Your task to perform on an android device: Add "alienware area 51" to the cart on bestbuy.com Image 0: 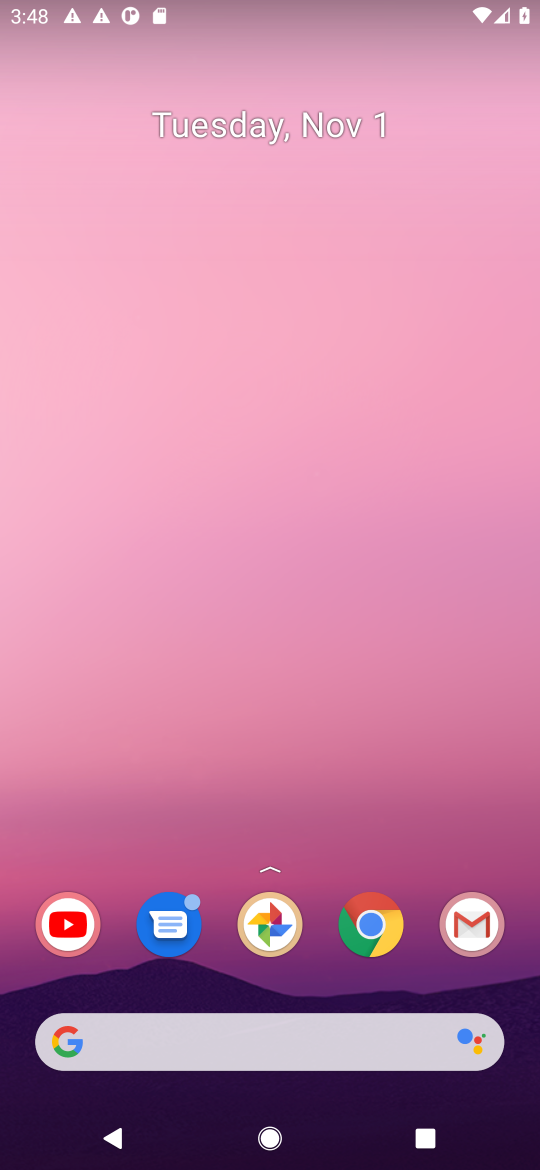
Step 0: drag from (184, 696) to (250, 230)
Your task to perform on an android device: Add "alienware area 51" to the cart on bestbuy.com Image 1: 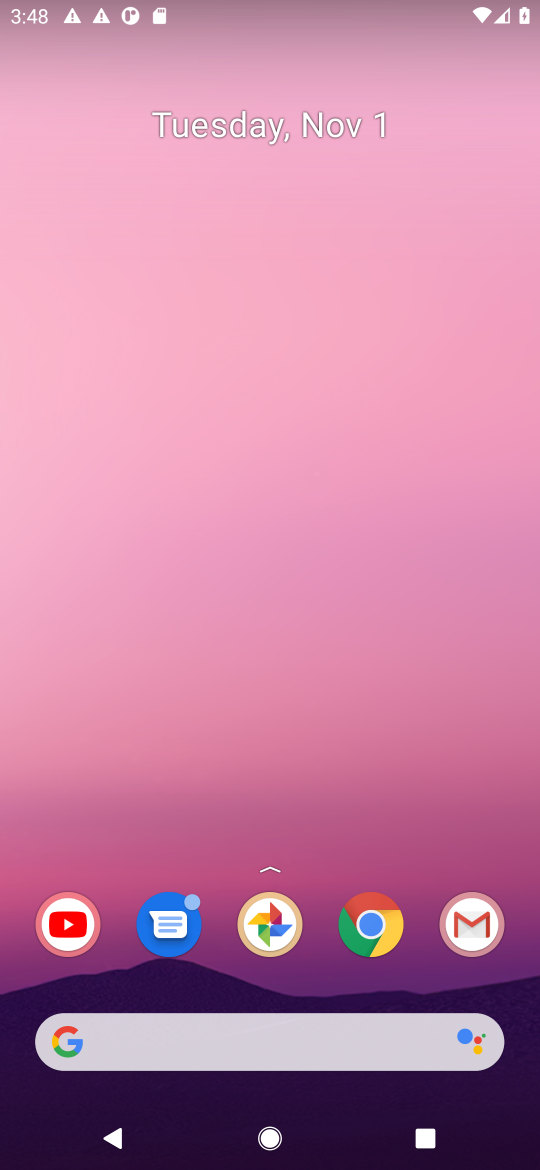
Step 1: drag from (257, 1039) to (127, 81)
Your task to perform on an android device: Add "alienware area 51" to the cart on bestbuy.com Image 2: 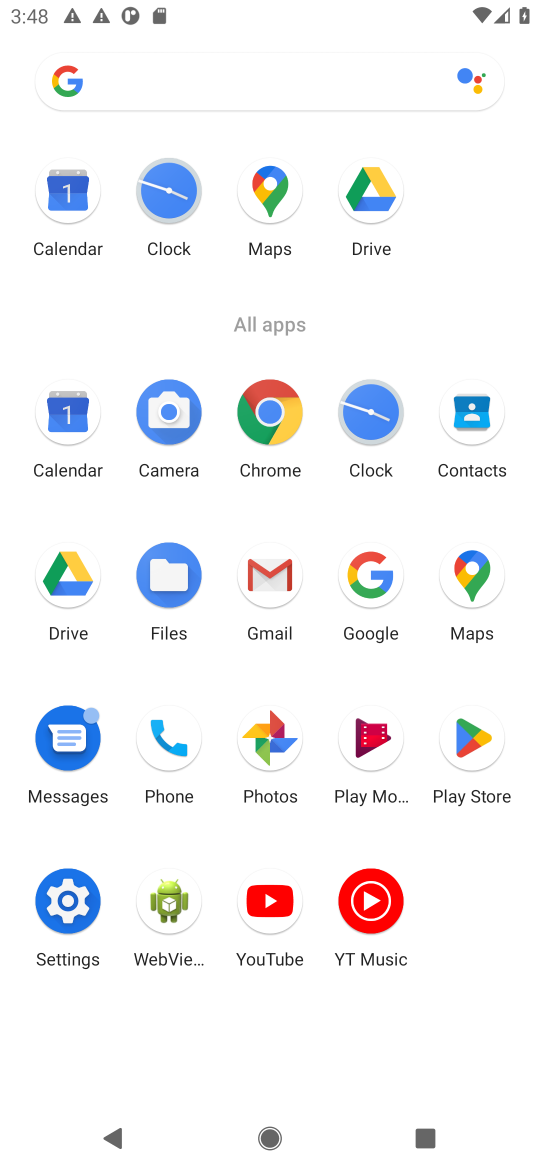
Step 2: click (303, 405)
Your task to perform on an android device: Add "alienware area 51" to the cart on bestbuy.com Image 3: 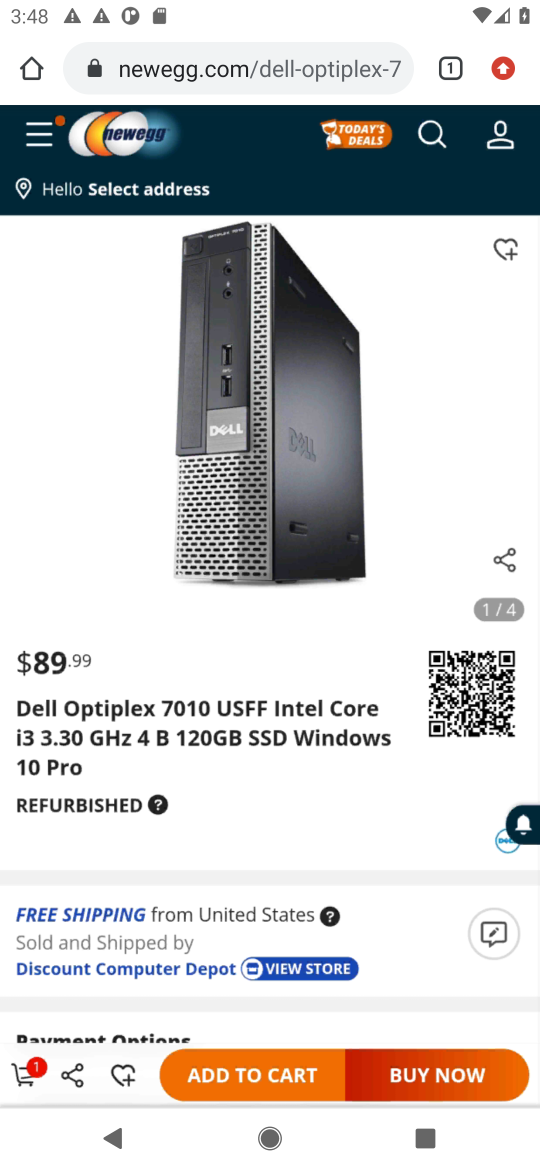
Step 3: click (134, 62)
Your task to perform on an android device: Add "alienware area 51" to the cart on bestbuy.com Image 4: 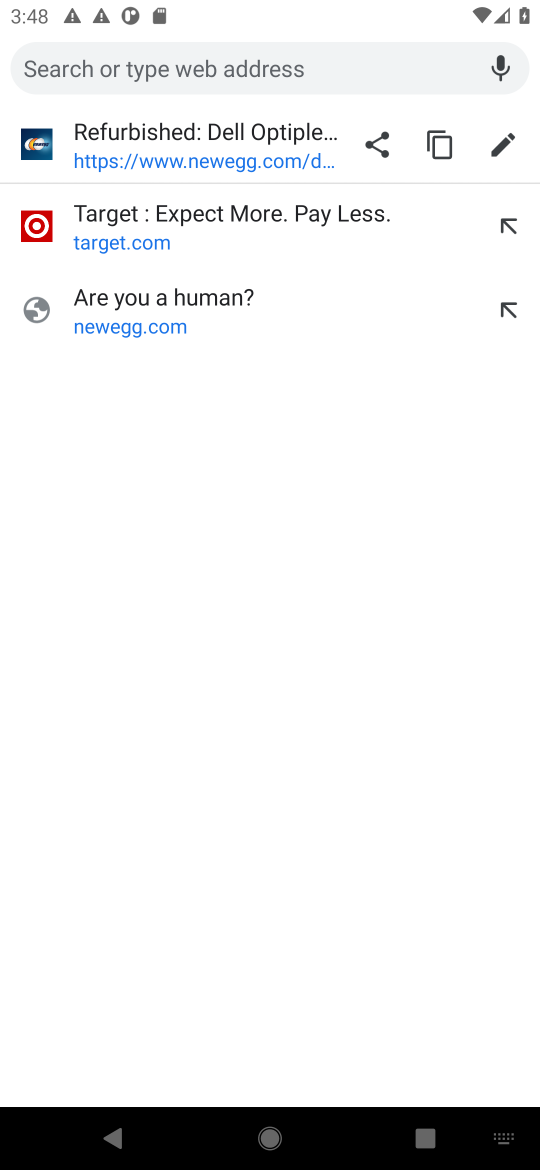
Step 4: type "bestbuy.com"
Your task to perform on an android device: Add "alienware area 51" to the cart on bestbuy.com Image 5: 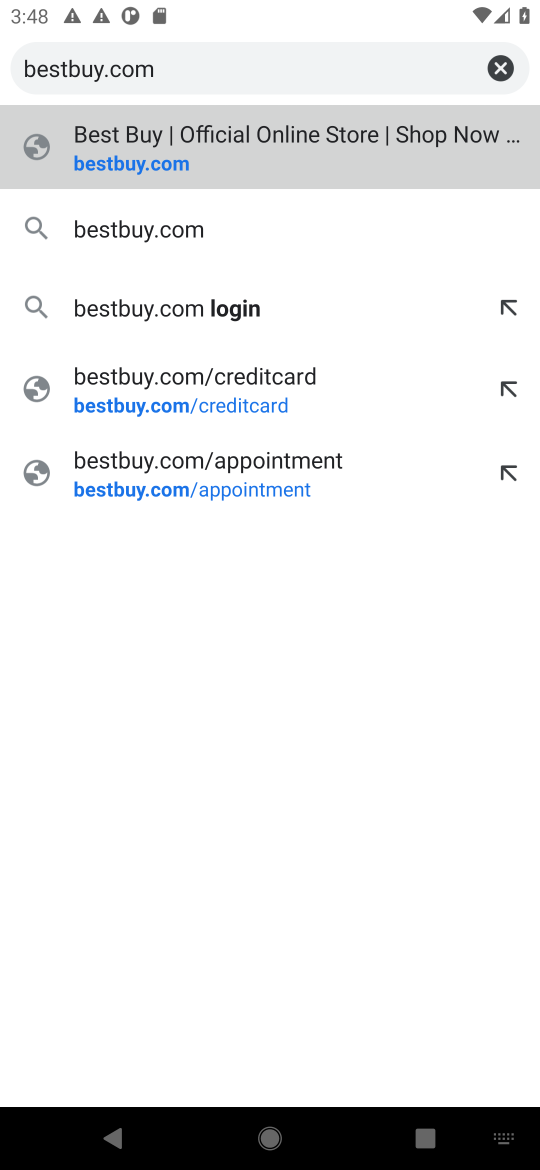
Step 5: press enter
Your task to perform on an android device: Add "alienware area 51" to the cart on bestbuy.com Image 6: 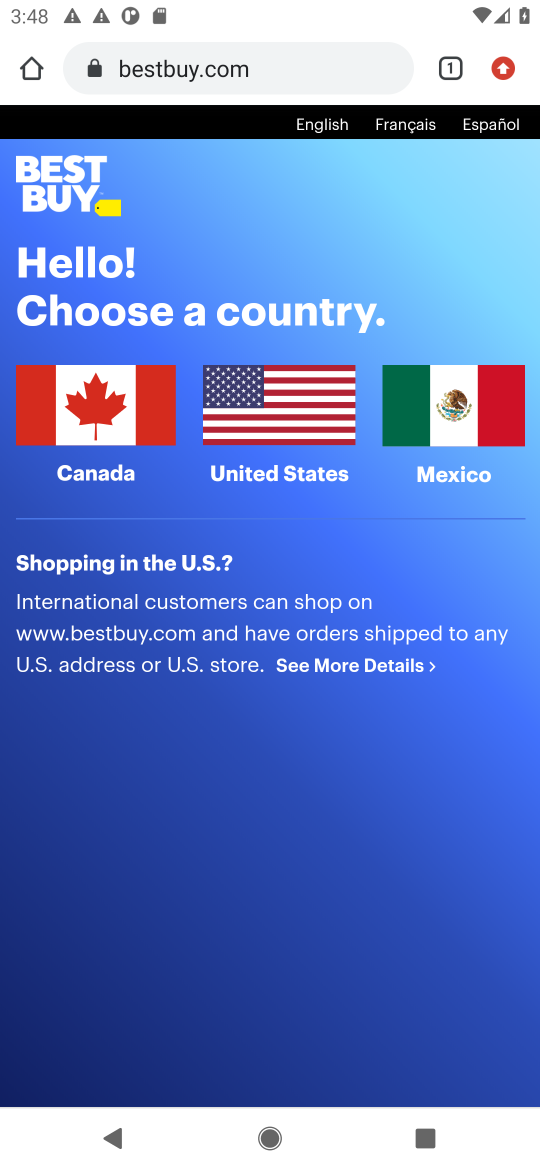
Step 6: click (35, 434)
Your task to perform on an android device: Add "alienware area 51" to the cart on bestbuy.com Image 7: 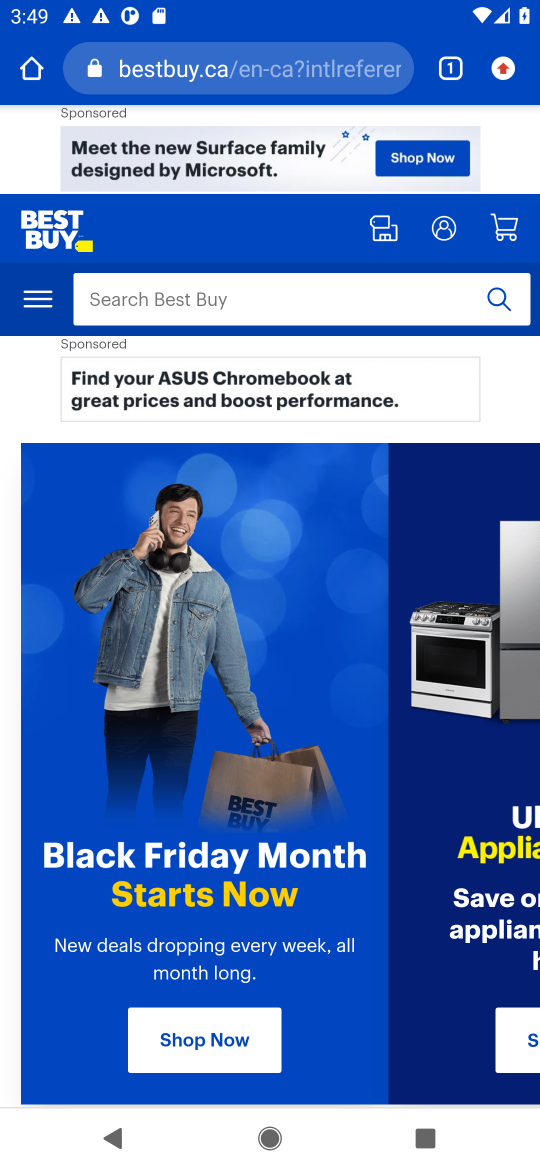
Step 7: click (132, 305)
Your task to perform on an android device: Add "alienware area 51" to the cart on bestbuy.com Image 8: 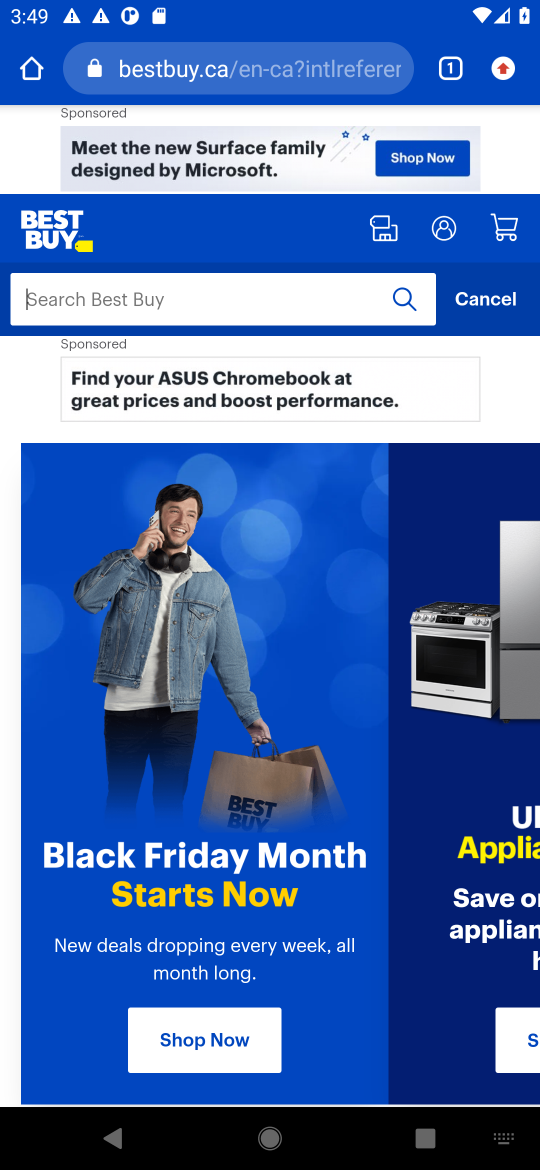
Step 8: type "alienware area 51"
Your task to perform on an android device: Add "alienware area 51" to the cart on bestbuy.com Image 9: 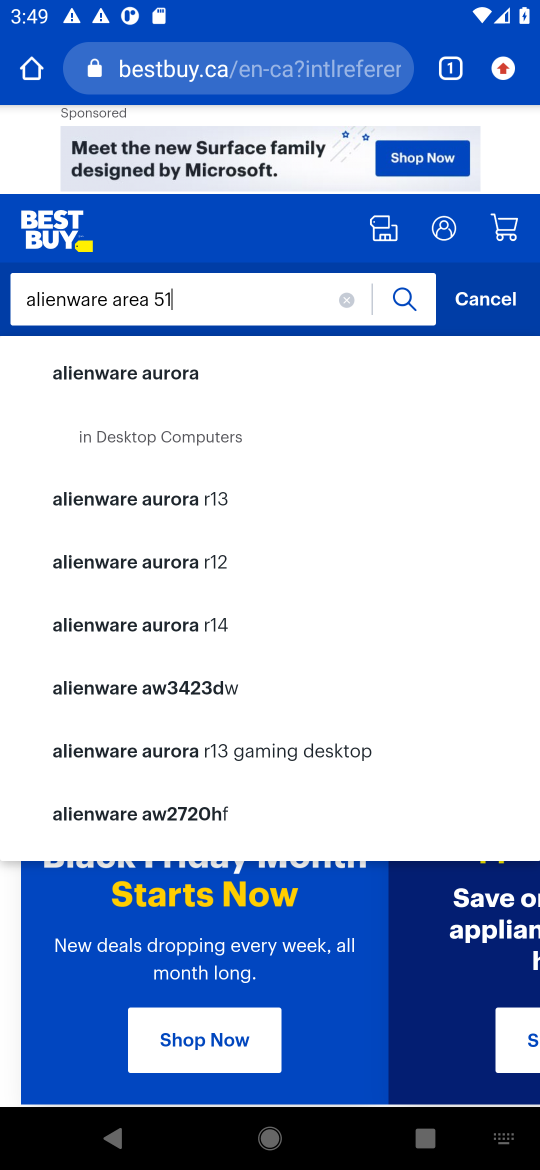
Step 9: press enter
Your task to perform on an android device: Add "alienware area 51" to the cart on bestbuy.com Image 10: 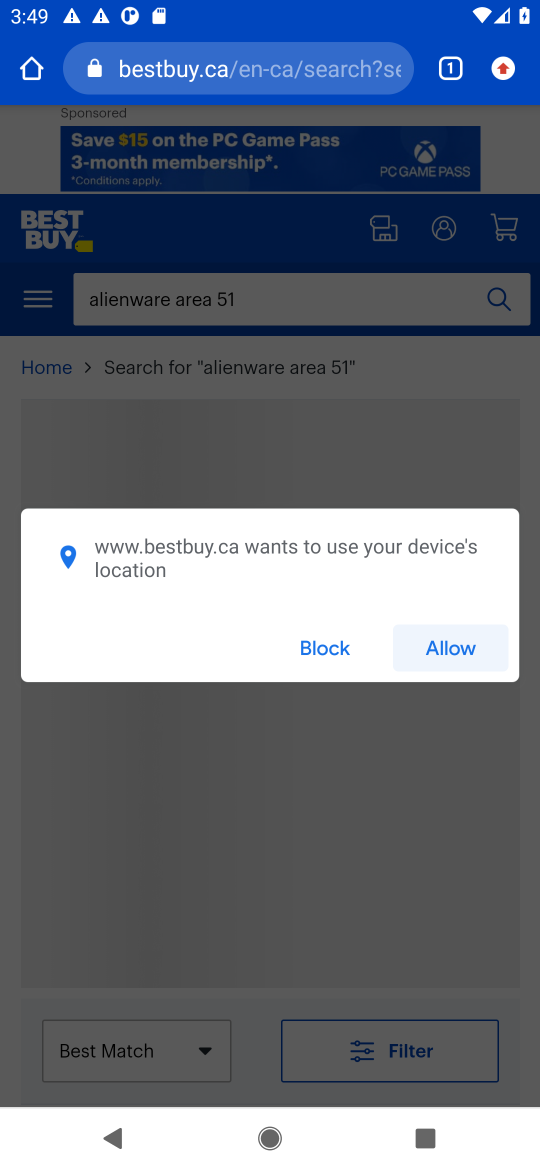
Step 10: click (422, 641)
Your task to perform on an android device: Add "alienware area 51" to the cart on bestbuy.com Image 11: 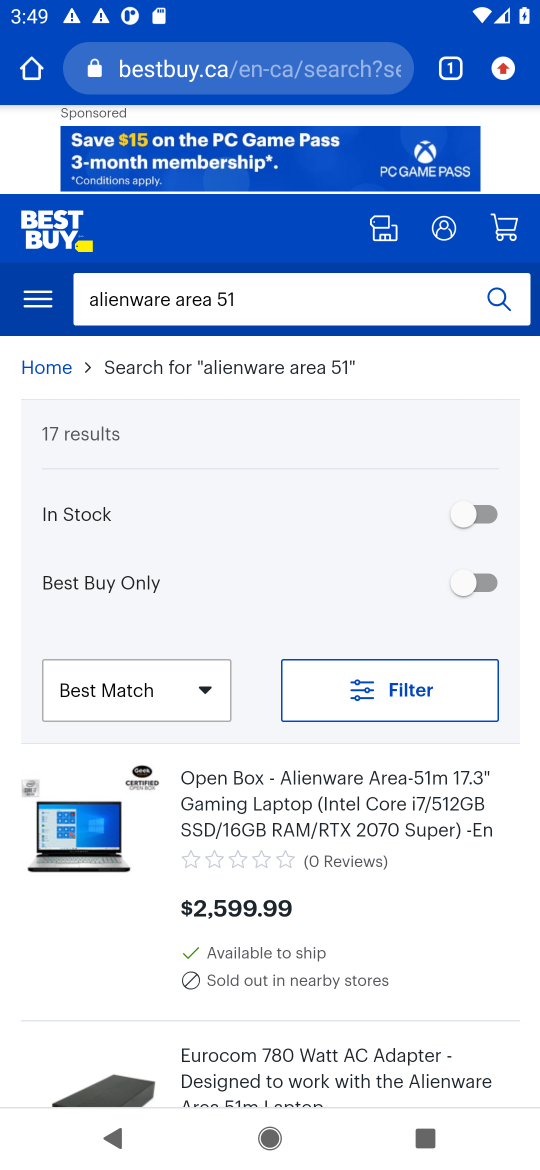
Step 11: drag from (331, 953) to (314, 572)
Your task to perform on an android device: Add "alienware area 51" to the cart on bestbuy.com Image 12: 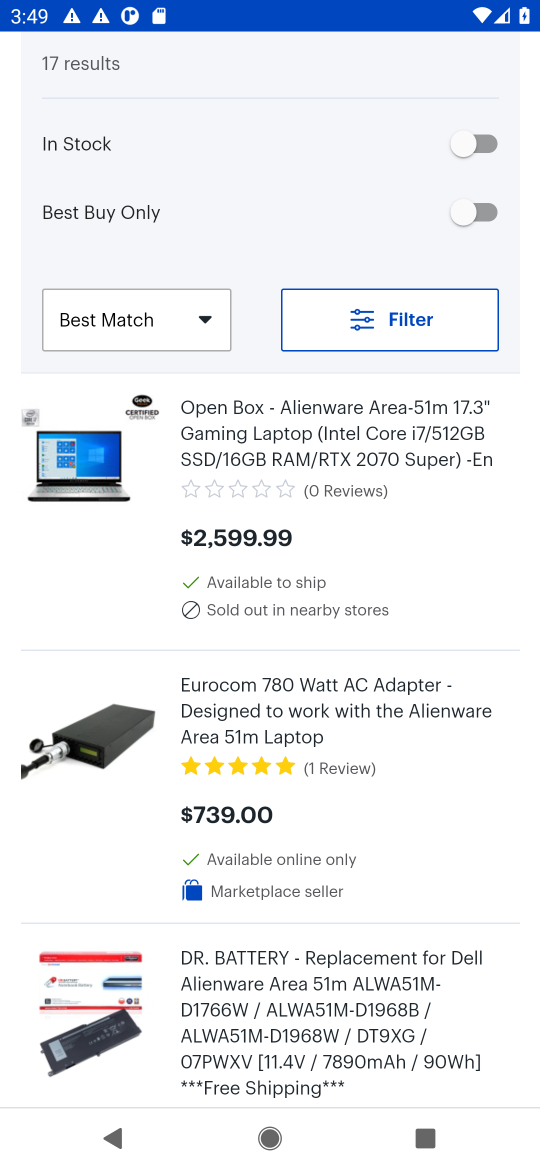
Step 12: click (195, 446)
Your task to perform on an android device: Add "alienware area 51" to the cart on bestbuy.com Image 13: 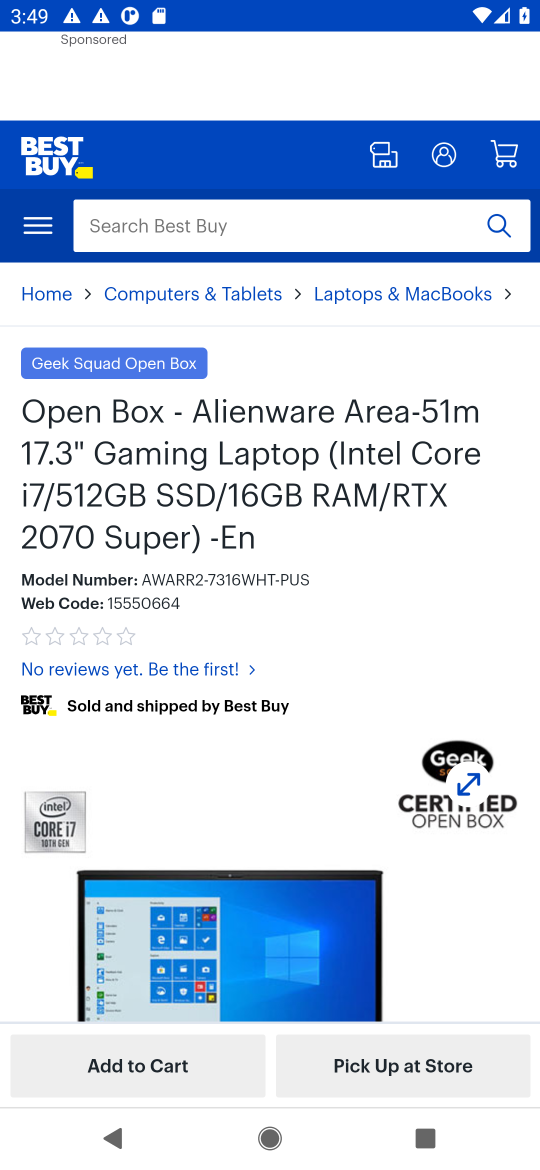
Step 13: drag from (65, 787) to (21, 545)
Your task to perform on an android device: Add "alienware area 51" to the cart on bestbuy.com Image 14: 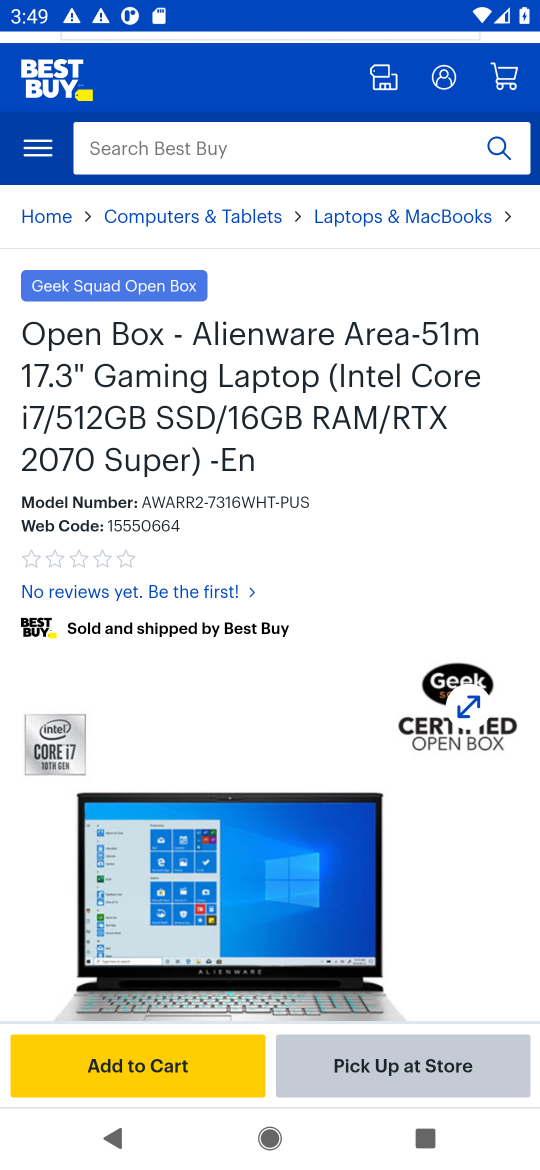
Step 14: click (116, 1062)
Your task to perform on an android device: Add "alienware area 51" to the cart on bestbuy.com Image 15: 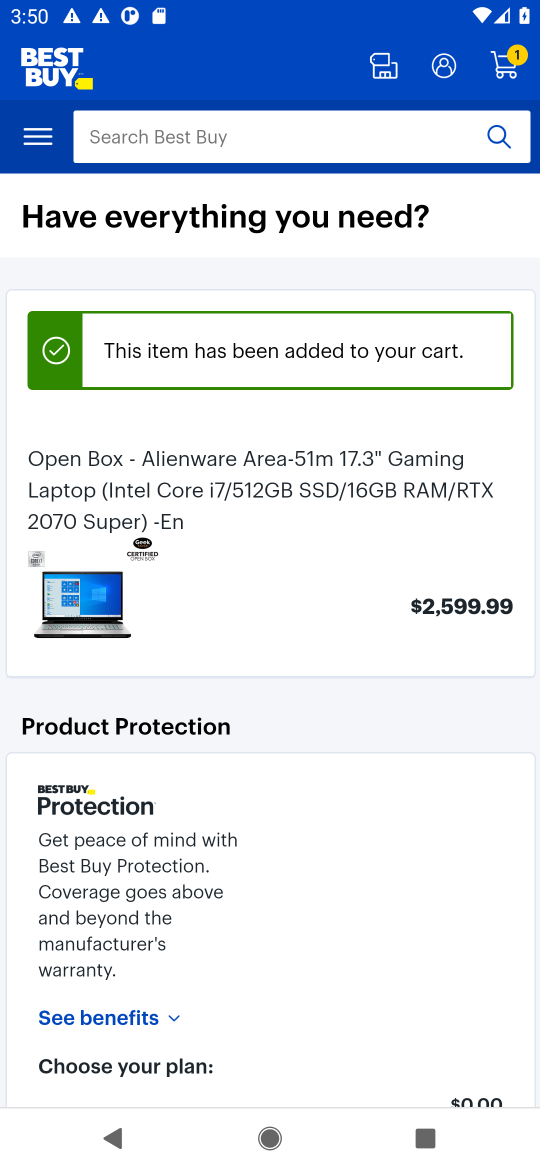
Step 15: task complete